Your task to perform on an android device: turn on notifications settings in the gmail app Image 0: 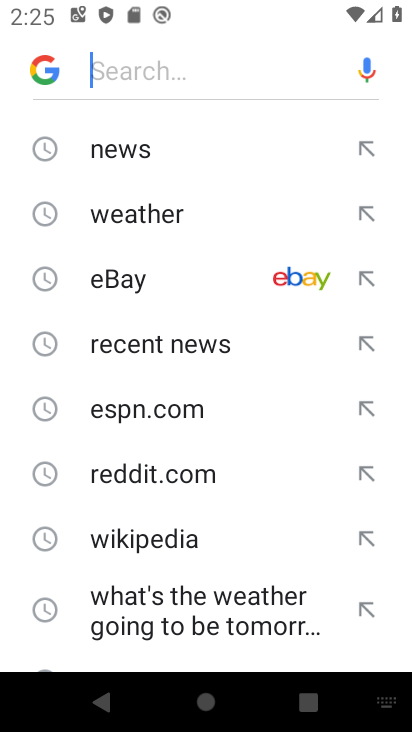
Step 0: drag from (168, 605) to (201, 140)
Your task to perform on an android device: turn on notifications settings in the gmail app Image 1: 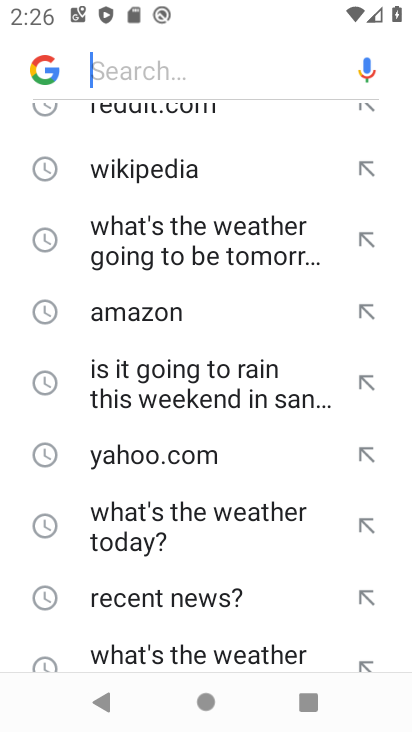
Step 1: press home button
Your task to perform on an android device: turn on notifications settings in the gmail app Image 2: 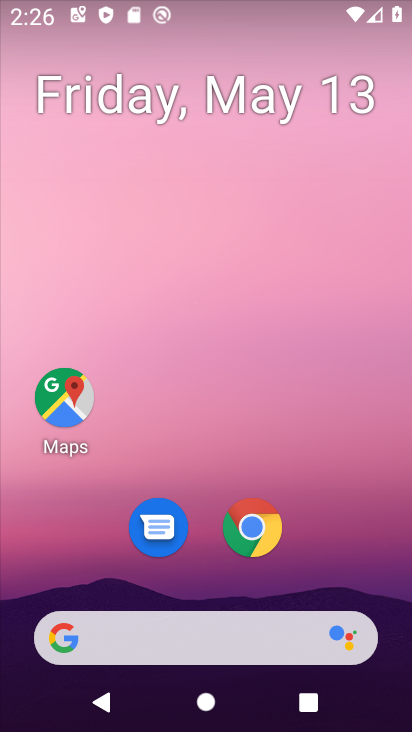
Step 2: drag from (198, 573) to (201, 106)
Your task to perform on an android device: turn on notifications settings in the gmail app Image 3: 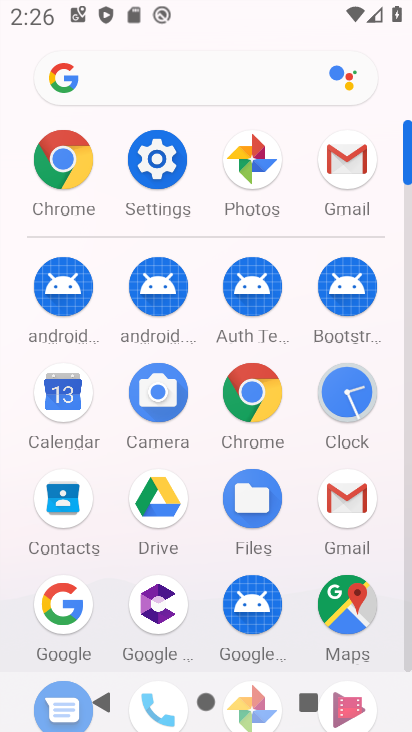
Step 3: click (348, 163)
Your task to perform on an android device: turn on notifications settings in the gmail app Image 4: 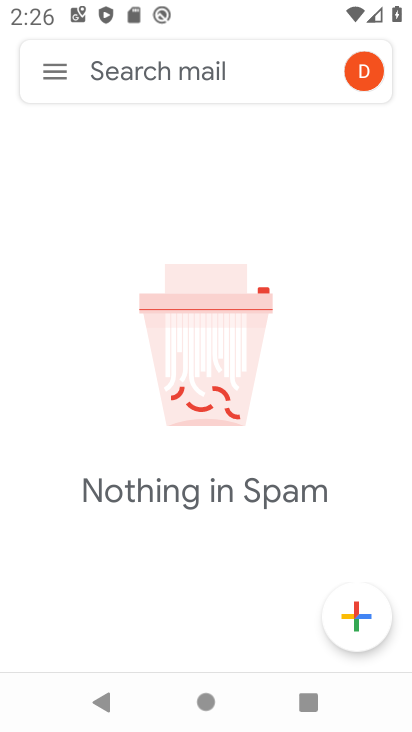
Step 4: click (44, 56)
Your task to perform on an android device: turn on notifications settings in the gmail app Image 5: 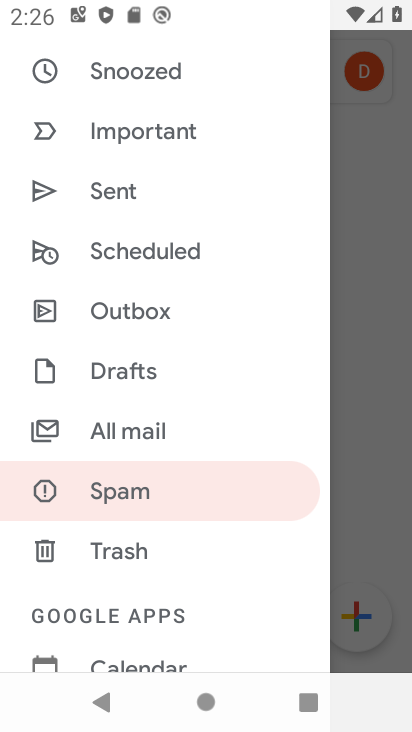
Step 5: drag from (106, 616) to (134, 250)
Your task to perform on an android device: turn on notifications settings in the gmail app Image 6: 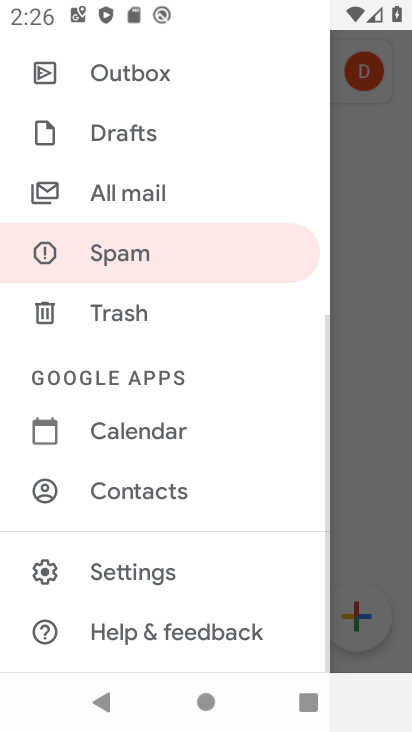
Step 6: click (138, 589)
Your task to perform on an android device: turn on notifications settings in the gmail app Image 7: 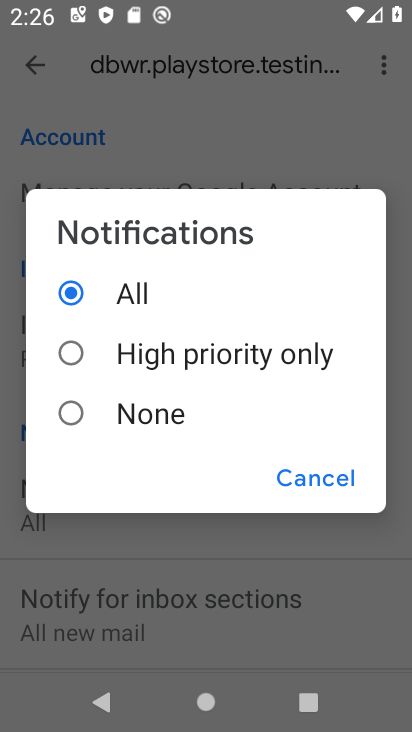
Step 7: task complete